Your task to perform on an android device: find which apps use the phone's location Image 0: 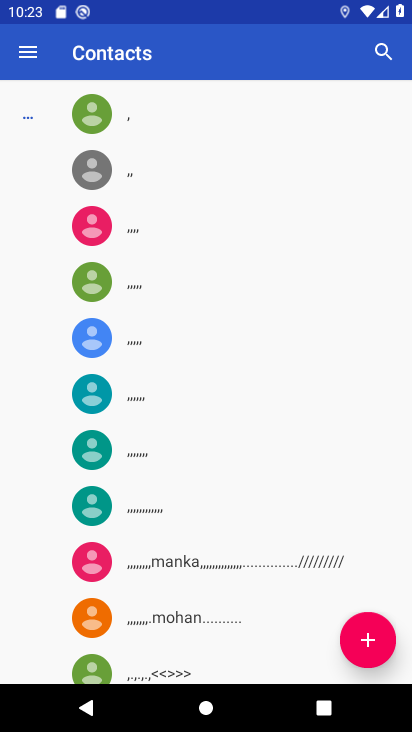
Step 0: press home button
Your task to perform on an android device: find which apps use the phone's location Image 1: 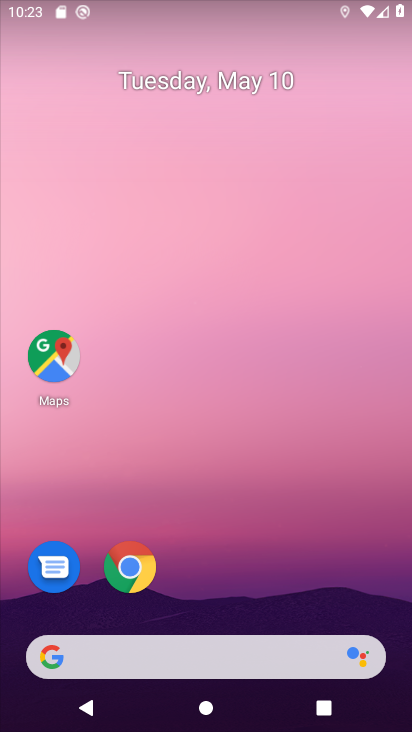
Step 1: drag from (212, 469) to (281, 16)
Your task to perform on an android device: find which apps use the phone's location Image 2: 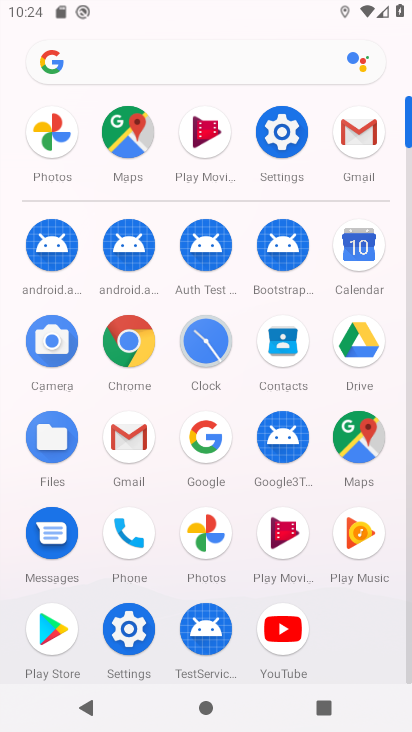
Step 2: click (293, 136)
Your task to perform on an android device: find which apps use the phone's location Image 3: 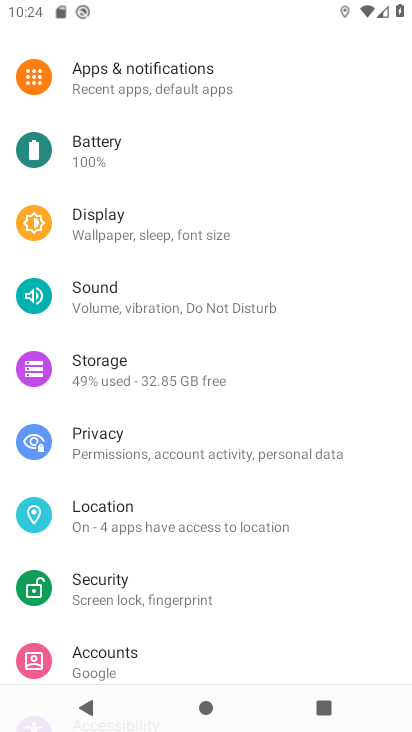
Step 3: click (205, 84)
Your task to perform on an android device: find which apps use the phone's location Image 4: 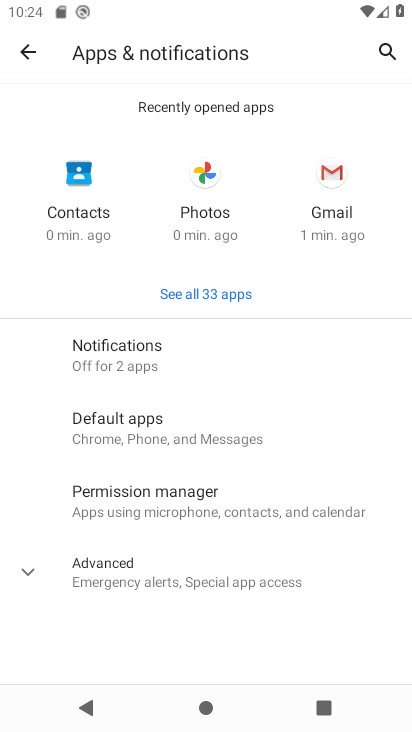
Step 4: click (24, 566)
Your task to perform on an android device: find which apps use the phone's location Image 5: 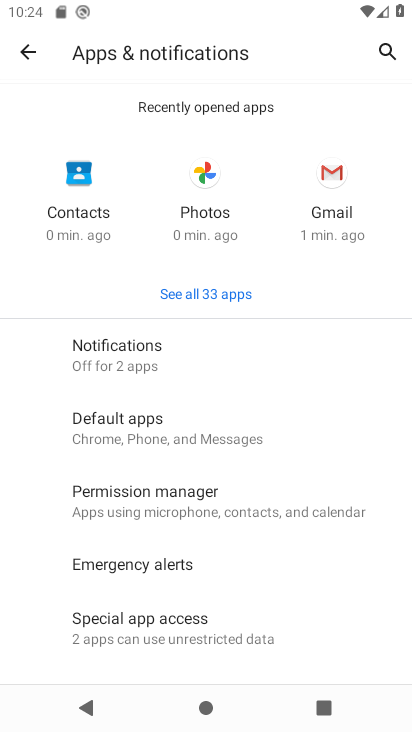
Step 5: click (151, 373)
Your task to perform on an android device: find which apps use the phone's location Image 6: 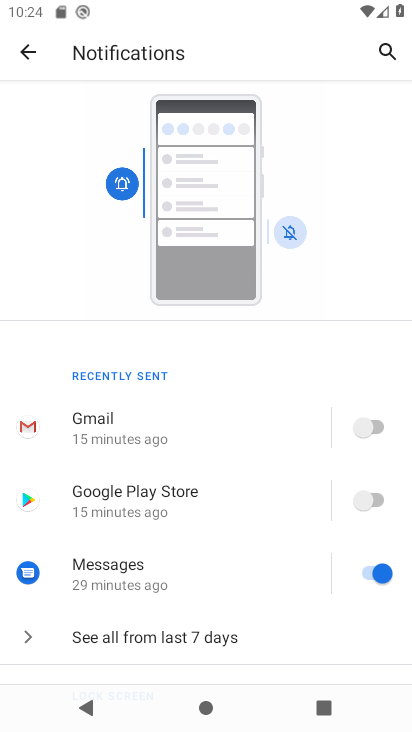
Step 6: drag from (182, 514) to (206, 342)
Your task to perform on an android device: find which apps use the phone's location Image 7: 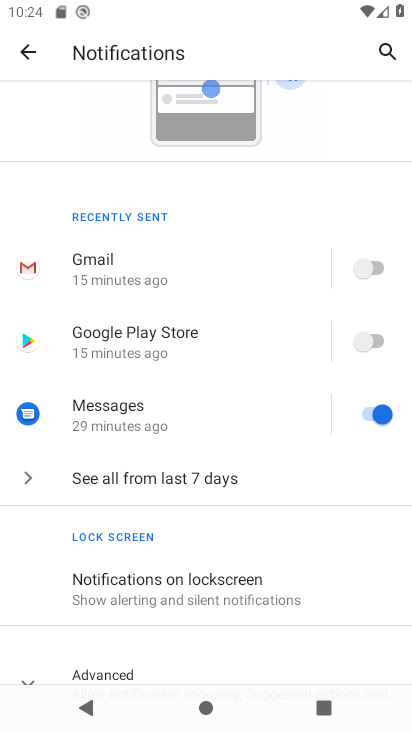
Step 7: drag from (170, 577) to (209, 333)
Your task to perform on an android device: find which apps use the phone's location Image 8: 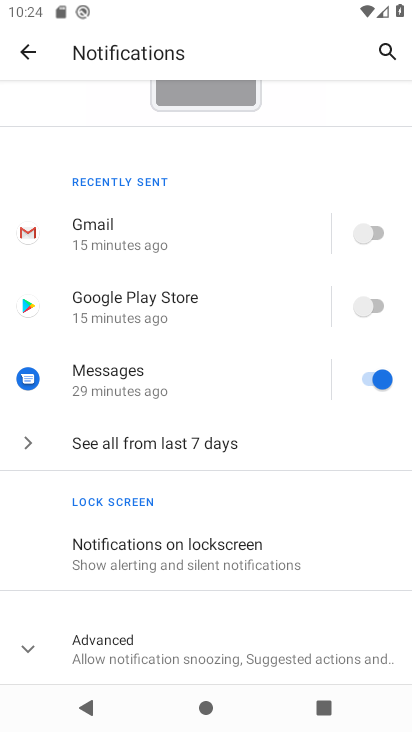
Step 8: click (22, 451)
Your task to perform on an android device: find which apps use the phone's location Image 9: 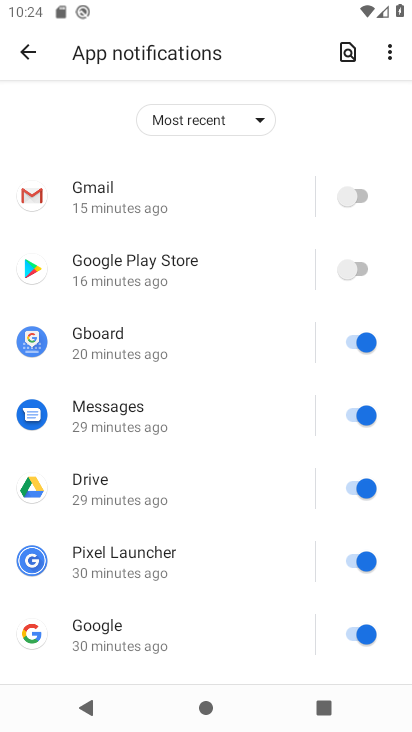
Step 9: task complete